Your task to perform on an android device: Open the web browser Image 0: 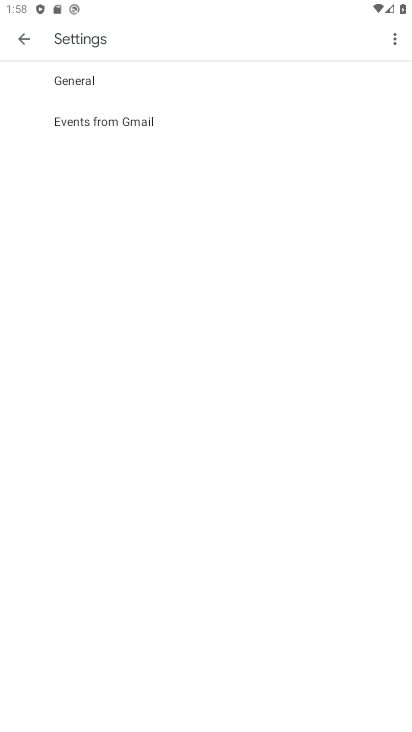
Step 0: press home button
Your task to perform on an android device: Open the web browser Image 1: 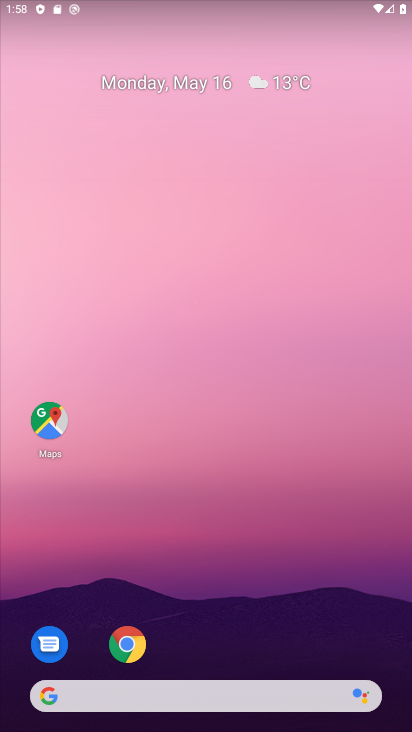
Step 1: click (121, 642)
Your task to perform on an android device: Open the web browser Image 2: 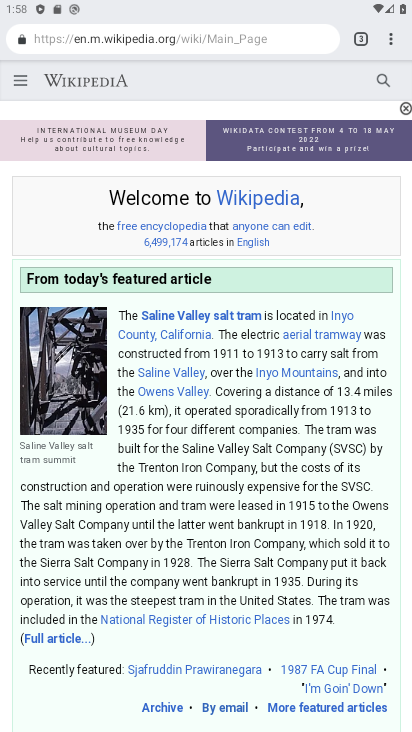
Step 2: task complete